Your task to perform on an android device: set the timer Image 0: 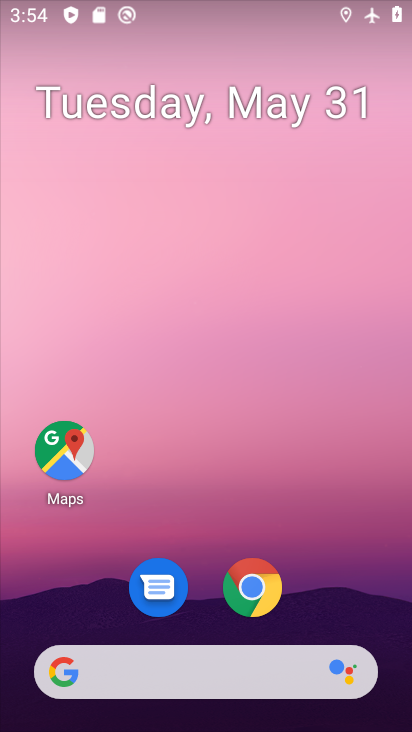
Step 0: drag from (76, 627) to (231, 83)
Your task to perform on an android device: set the timer Image 1: 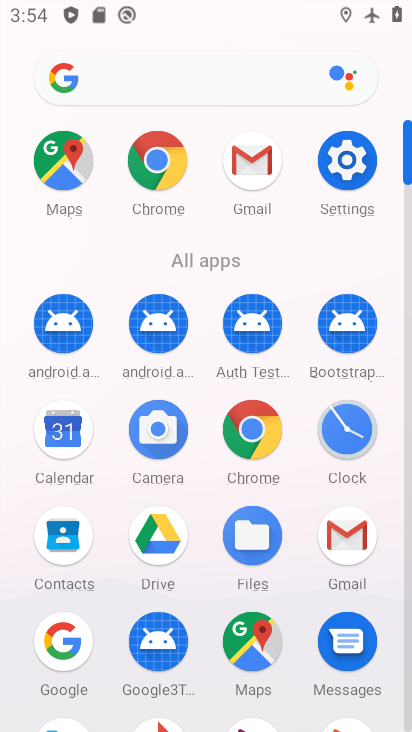
Step 1: click (352, 455)
Your task to perform on an android device: set the timer Image 2: 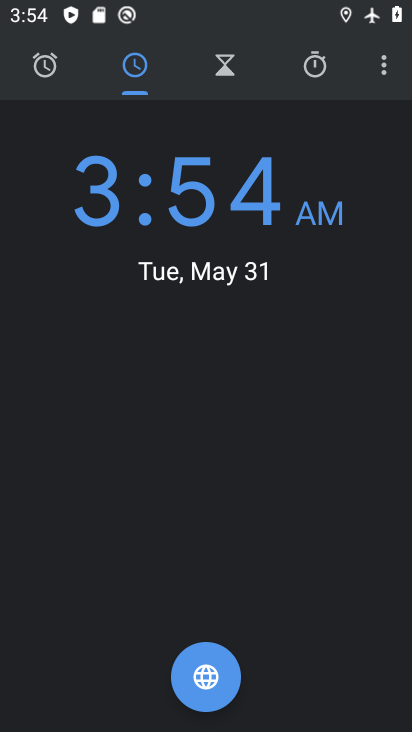
Step 2: click (251, 67)
Your task to perform on an android device: set the timer Image 3: 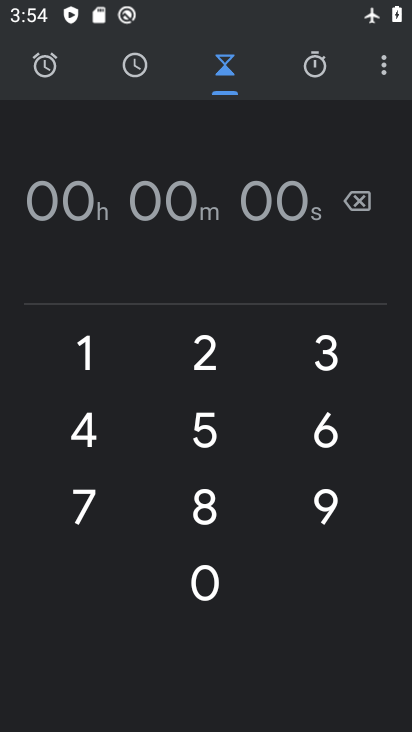
Step 3: click (239, 354)
Your task to perform on an android device: set the timer Image 4: 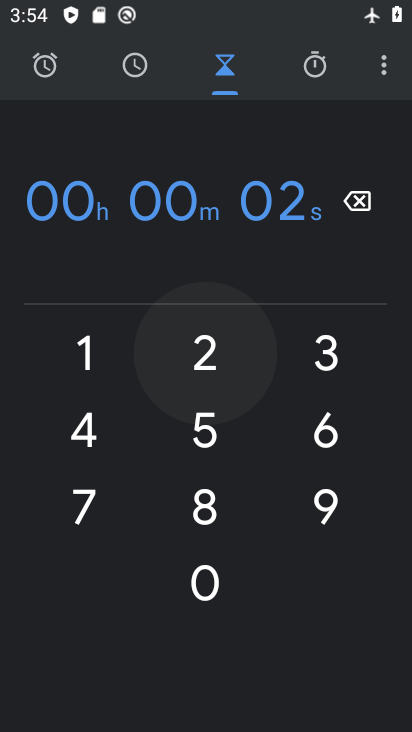
Step 4: click (239, 354)
Your task to perform on an android device: set the timer Image 5: 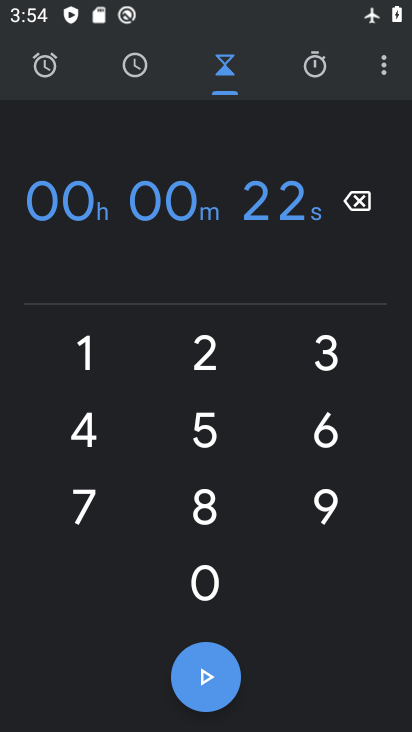
Step 5: click (320, 428)
Your task to perform on an android device: set the timer Image 6: 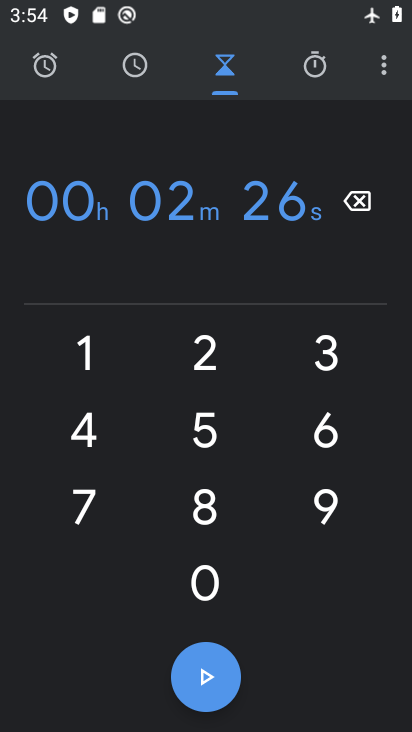
Step 6: click (186, 527)
Your task to perform on an android device: set the timer Image 7: 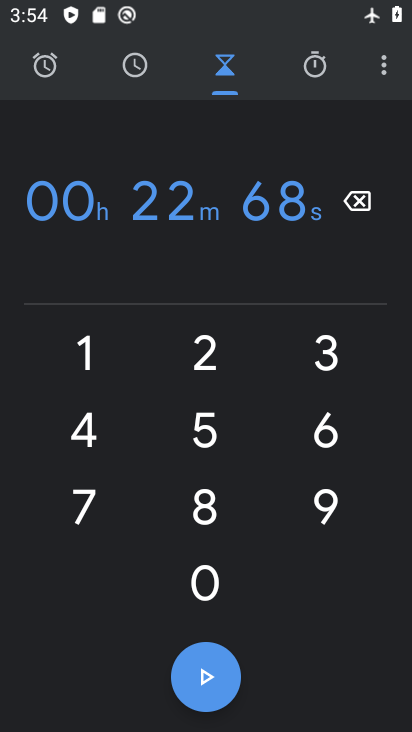
Step 7: click (207, 665)
Your task to perform on an android device: set the timer Image 8: 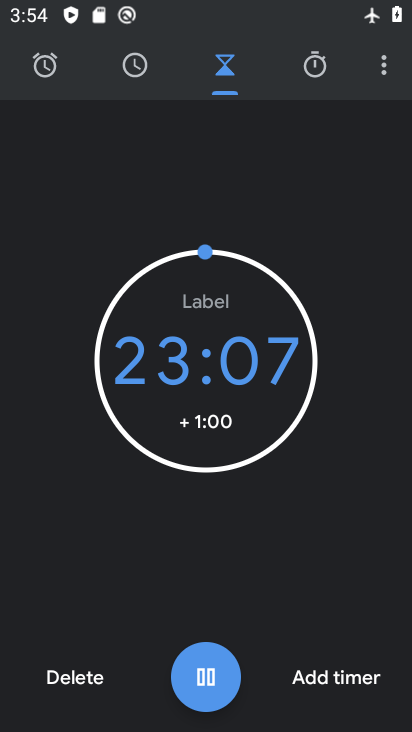
Step 8: task complete